Your task to perform on an android device: change the clock display to analog Image 0: 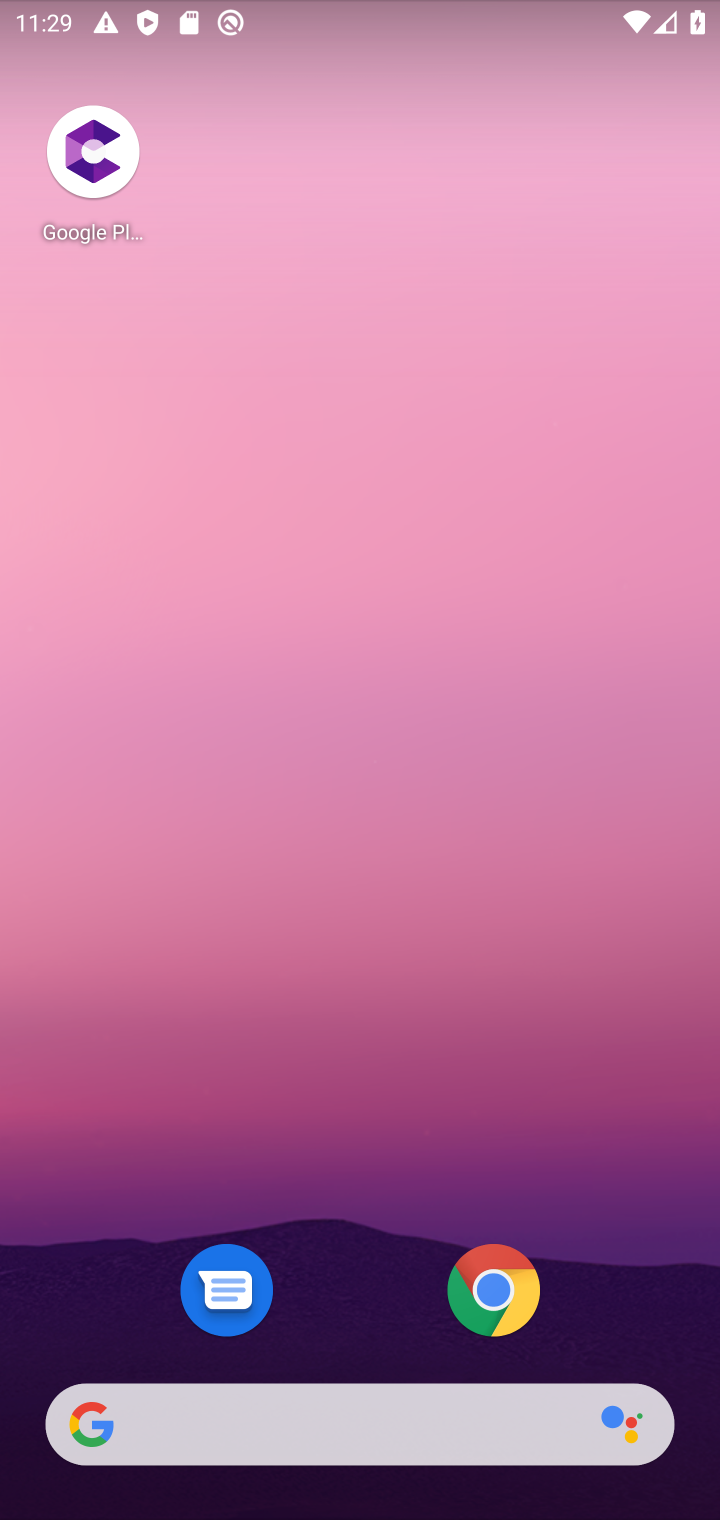
Step 0: drag from (525, 312) to (626, 26)
Your task to perform on an android device: change the clock display to analog Image 1: 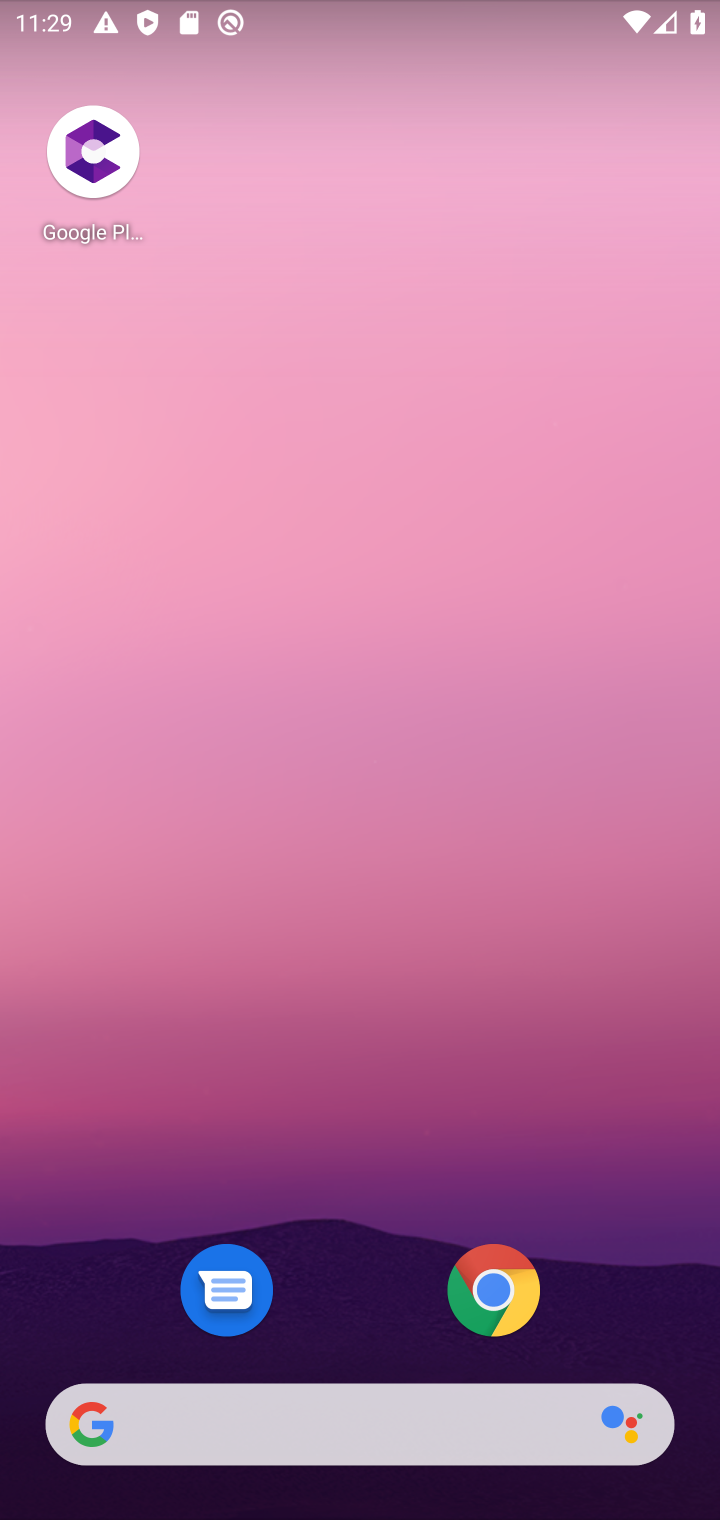
Step 1: drag from (160, 932) to (598, 3)
Your task to perform on an android device: change the clock display to analog Image 2: 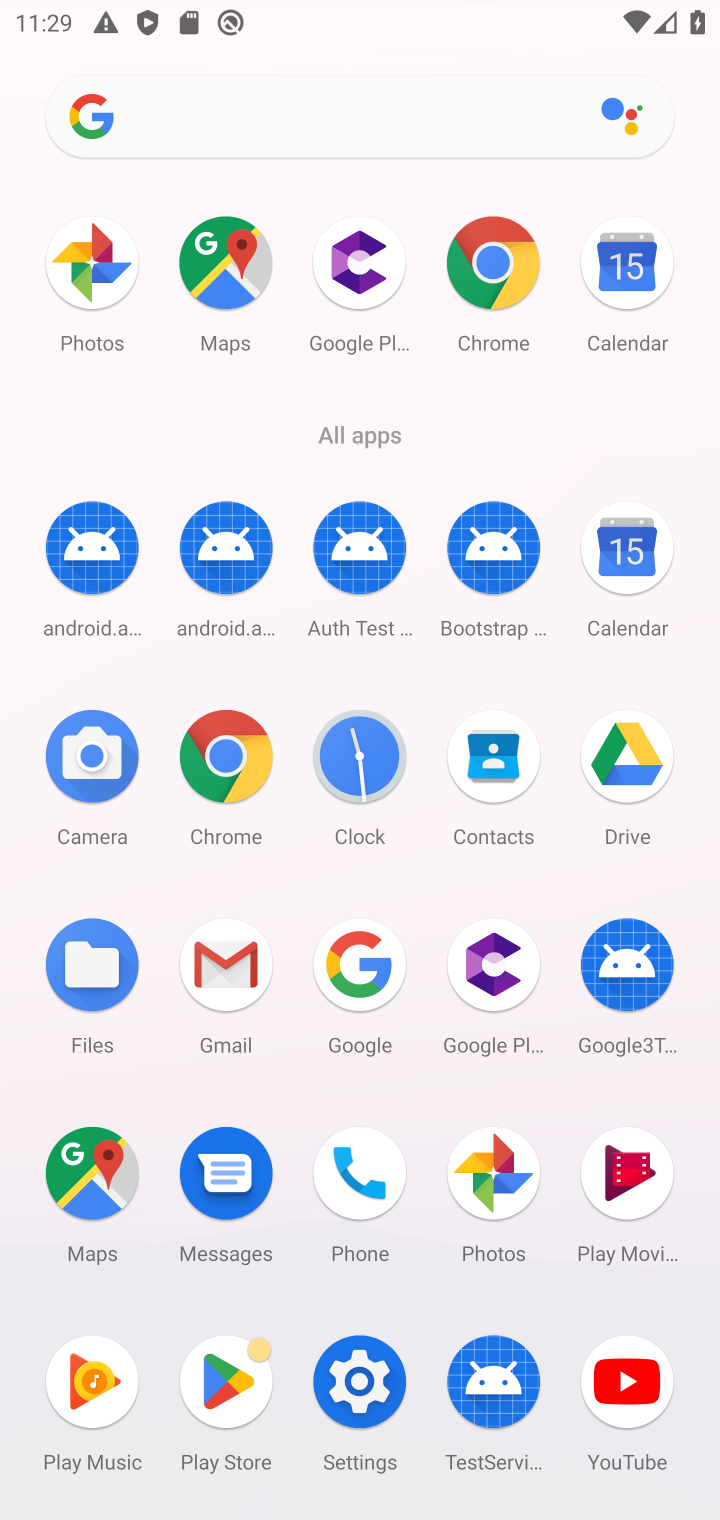
Step 2: click (352, 1379)
Your task to perform on an android device: change the clock display to analog Image 3: 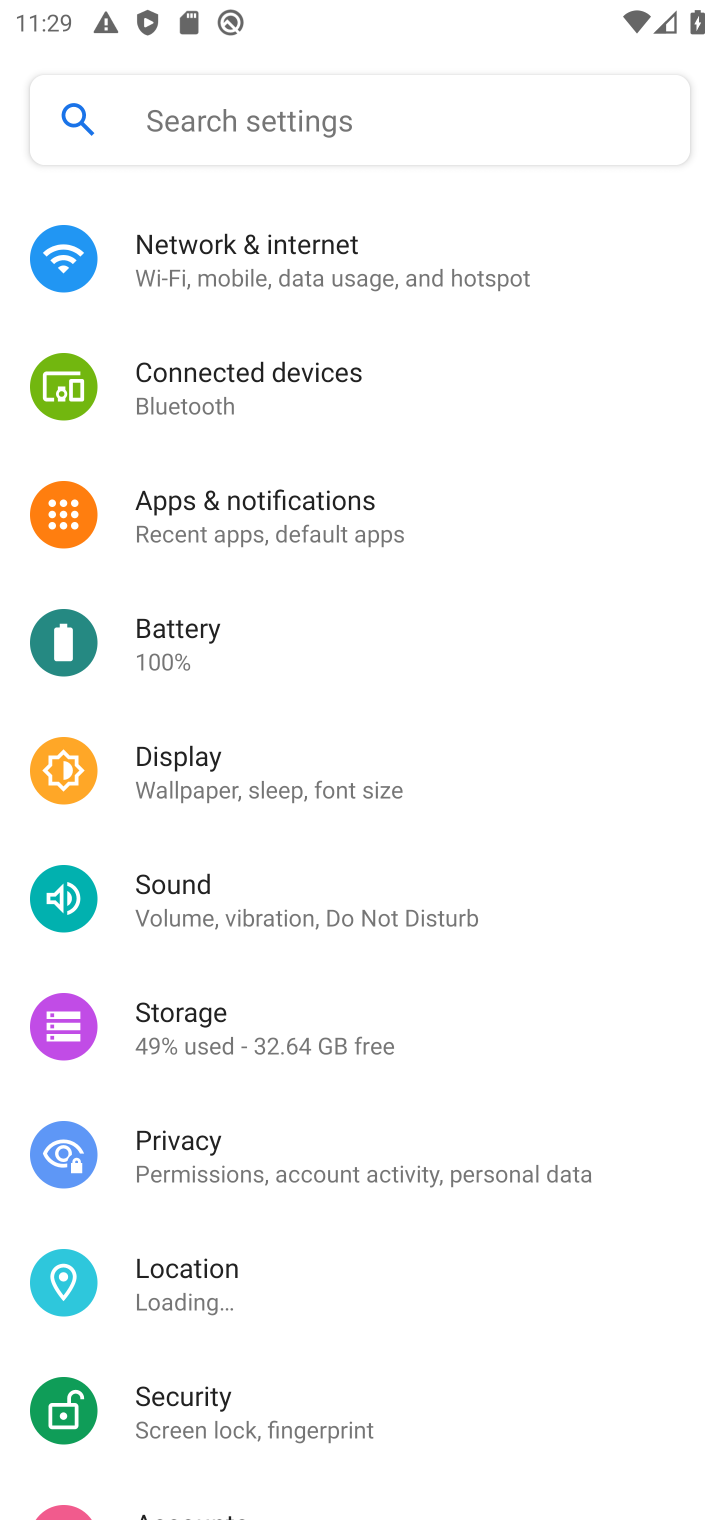
Step 3: press home button
Your task to perform on an android device: change the clock display to analog Image 4: 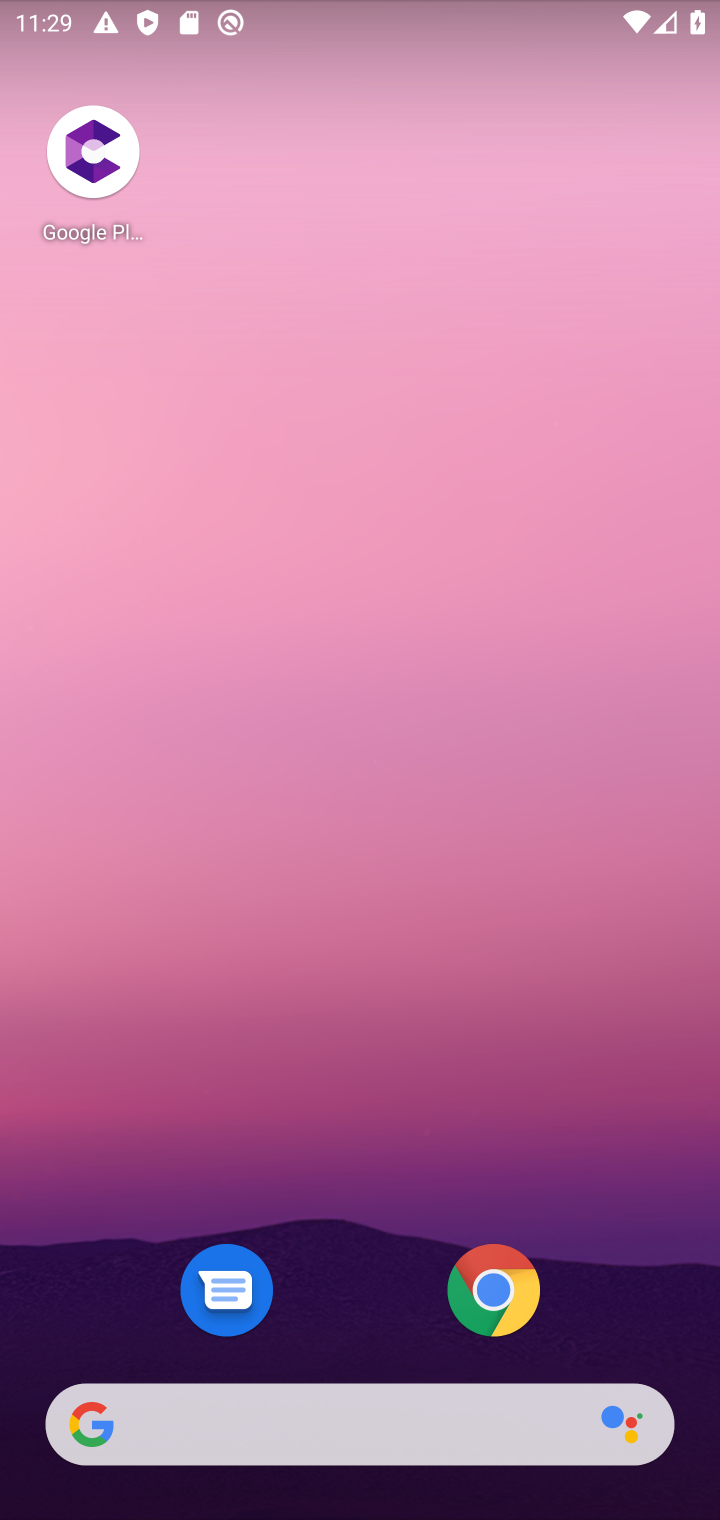
Step 4: drag from (126, 915) to (411, 348)
Your task to perform on an android device: change the clock display to analog Image 5: 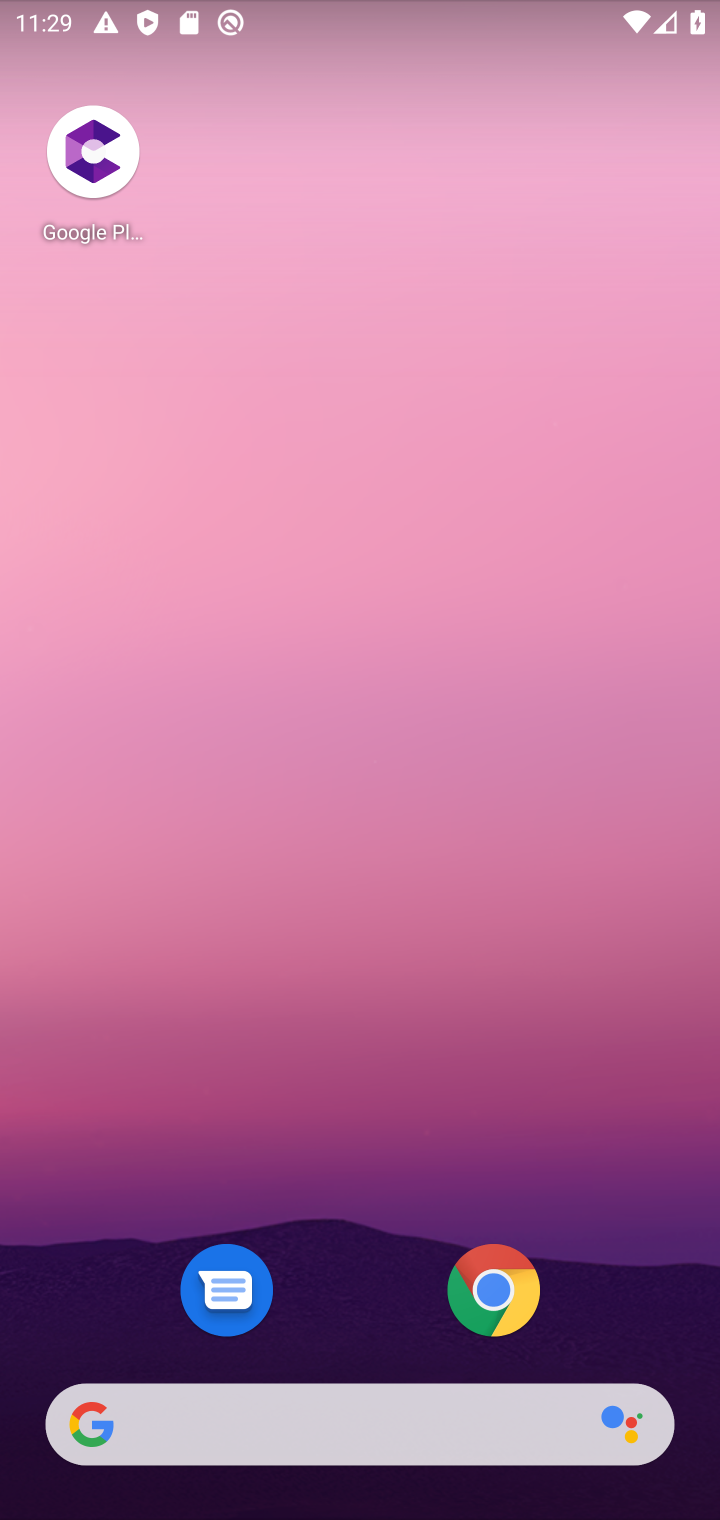
Step 5: drag from (206, 498) to (331, 62)
Your task to perform on an android device: change the clock display to analog Image 6: 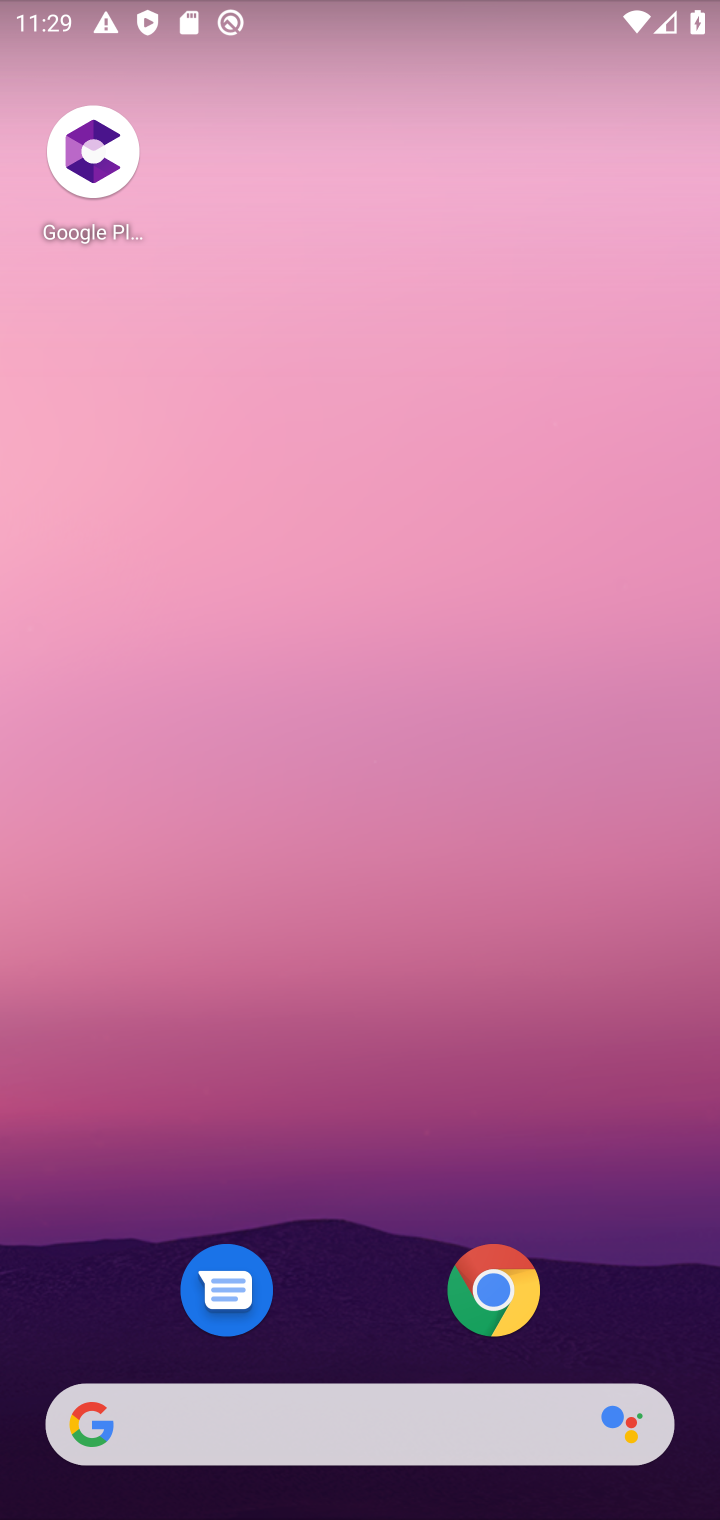
Step 6: drag from (189, 535) to (402, 11)
Your task to perform on an android device: change the clock display to analog Image 7: 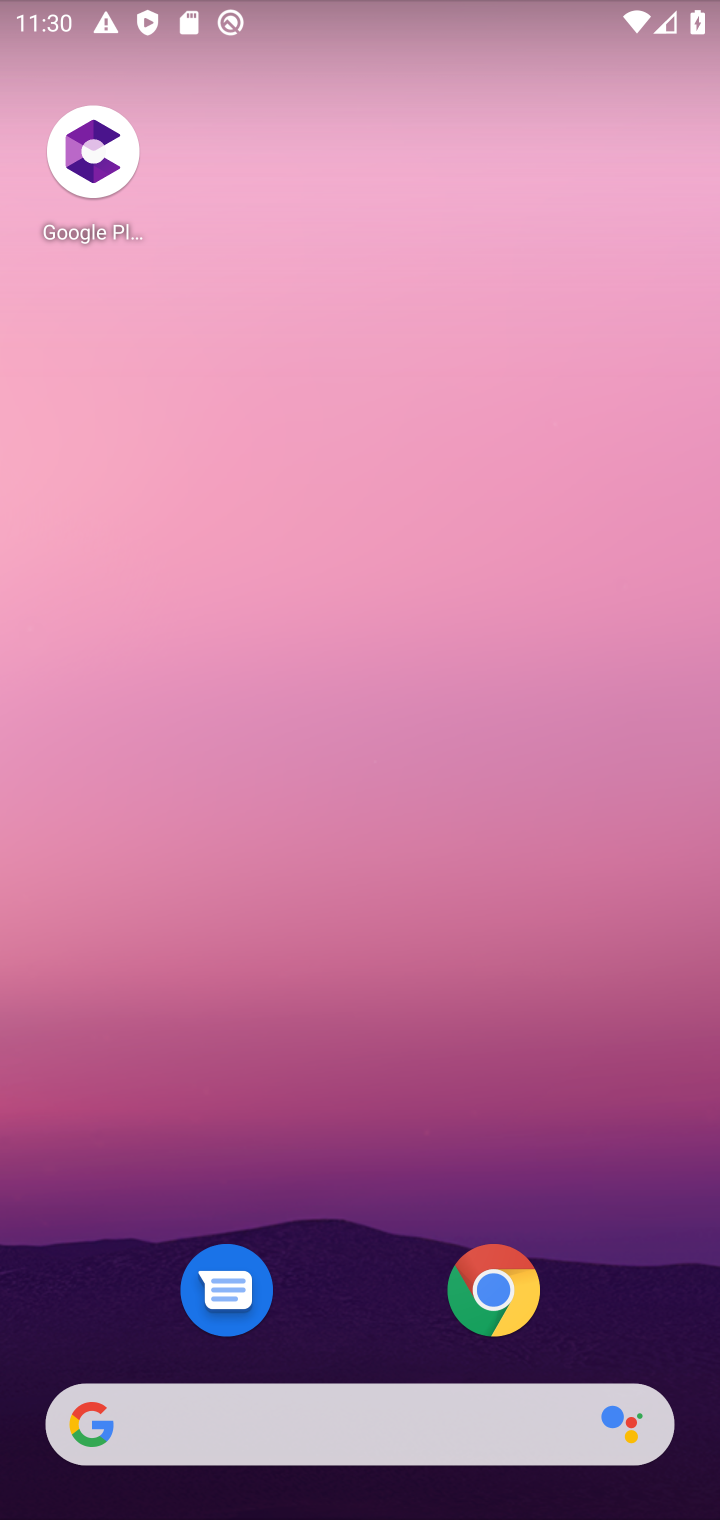
Step 7: drag from (152, 1142) to (701, 89)
Your task to perform on an android device: change the clock display to analog Image 8: 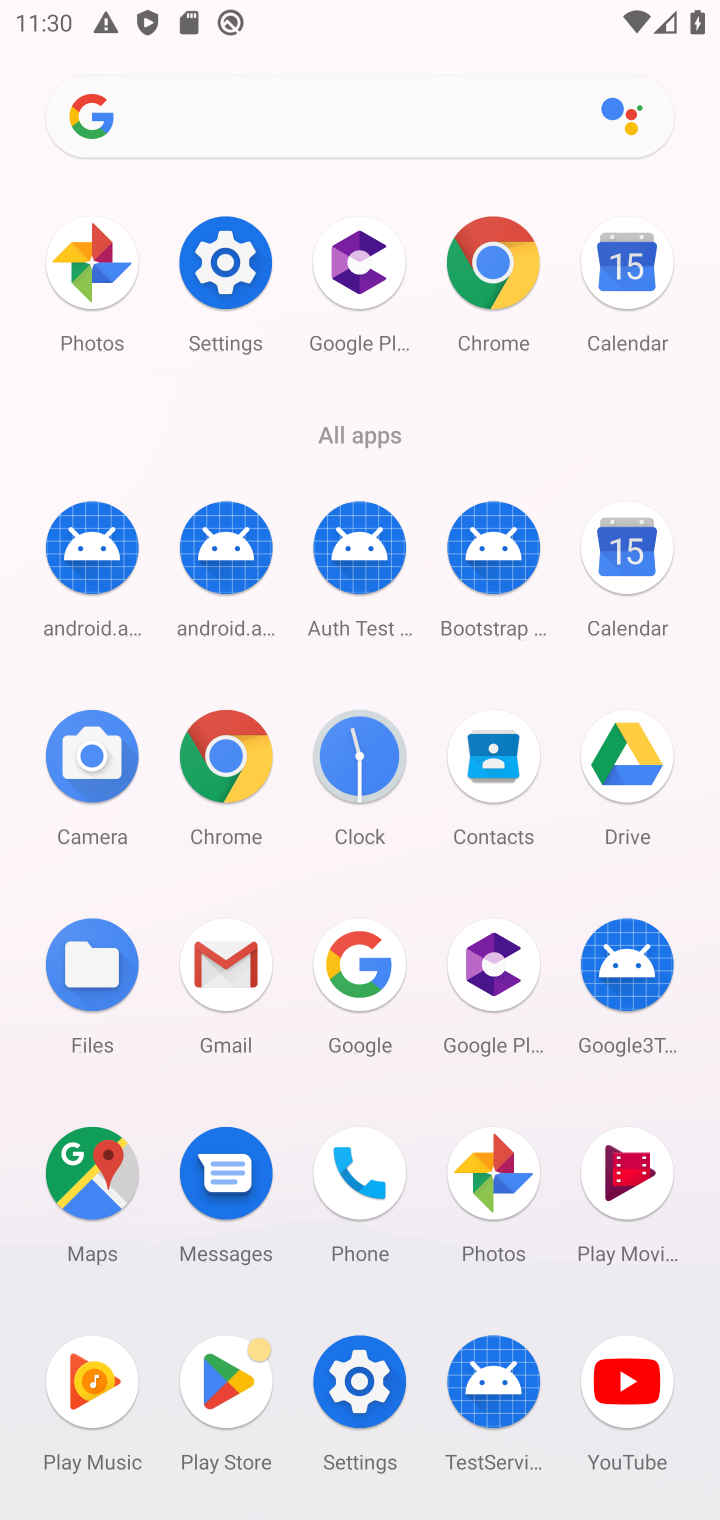
Step 8: click (346, 763)
Your task to perform on an android device: change the clock display to analog Image 9: 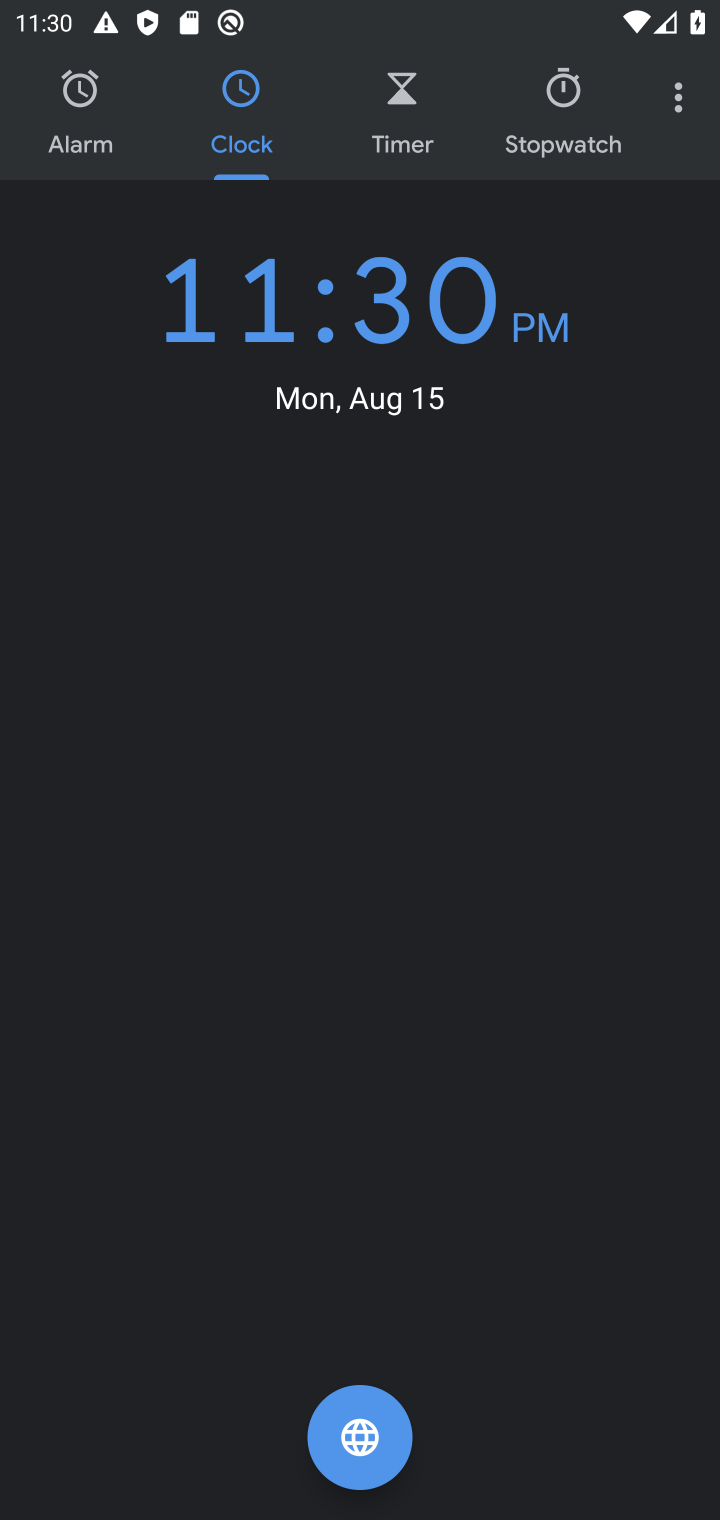
Step 9: click (684, 103)
Your task to perform on an android device: change the clock display to analog Image 10: 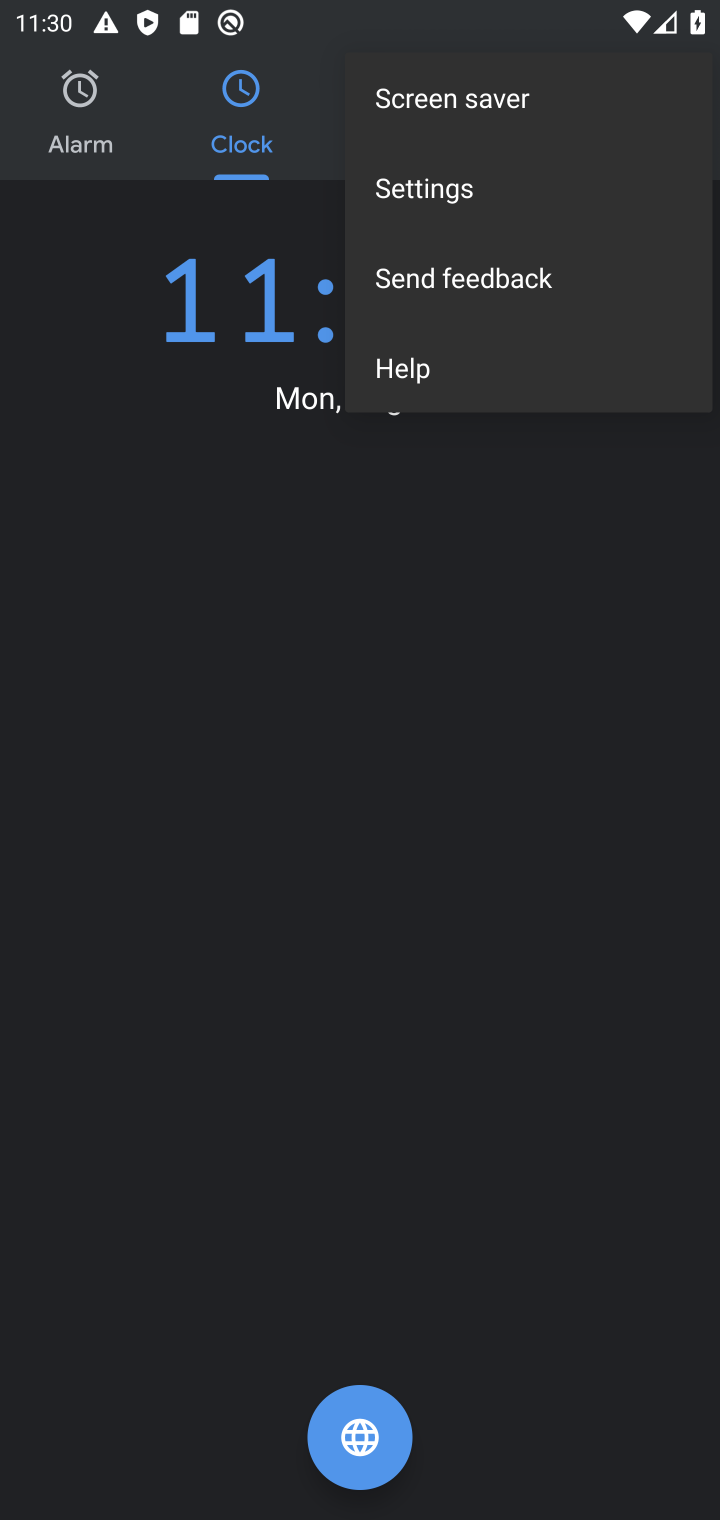
Step 10: click (484, 193)
Your task to perform on an android device: change the clock display to analog Image 11: 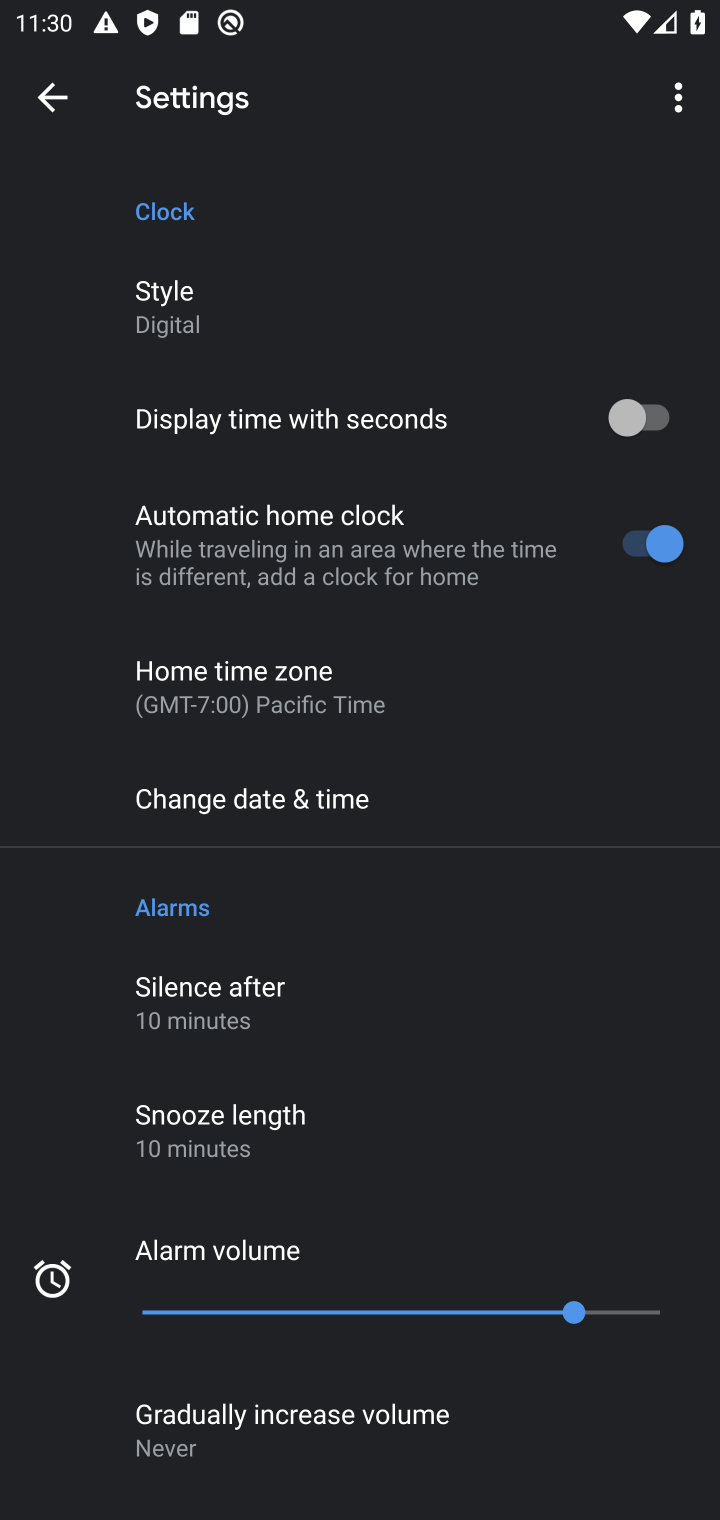
Step 11: click (172, 327)
Your task to perform on an android device: change the clock display to analog Image 12: 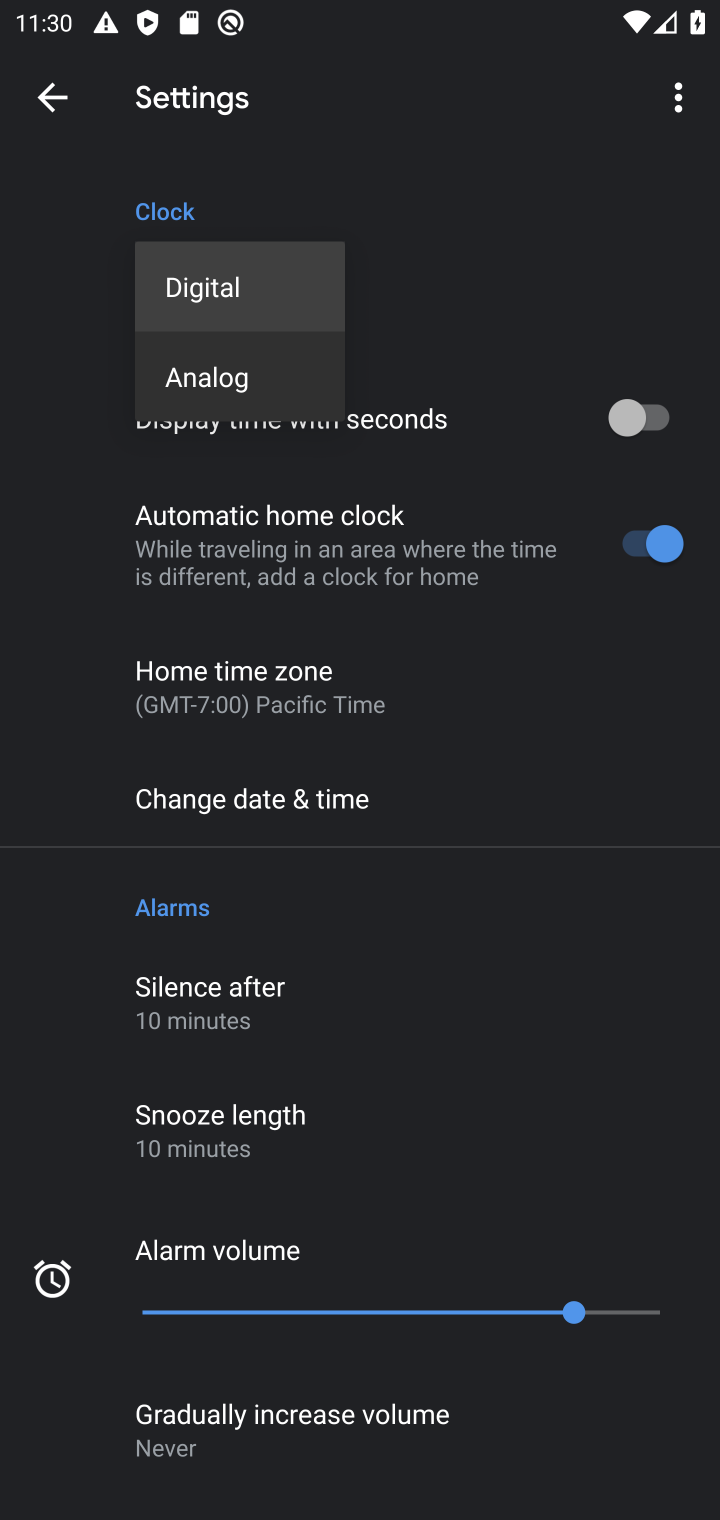
Step 12: click (212, 384)
Your task to perform on an android device: change the clock display to analog Image 13: 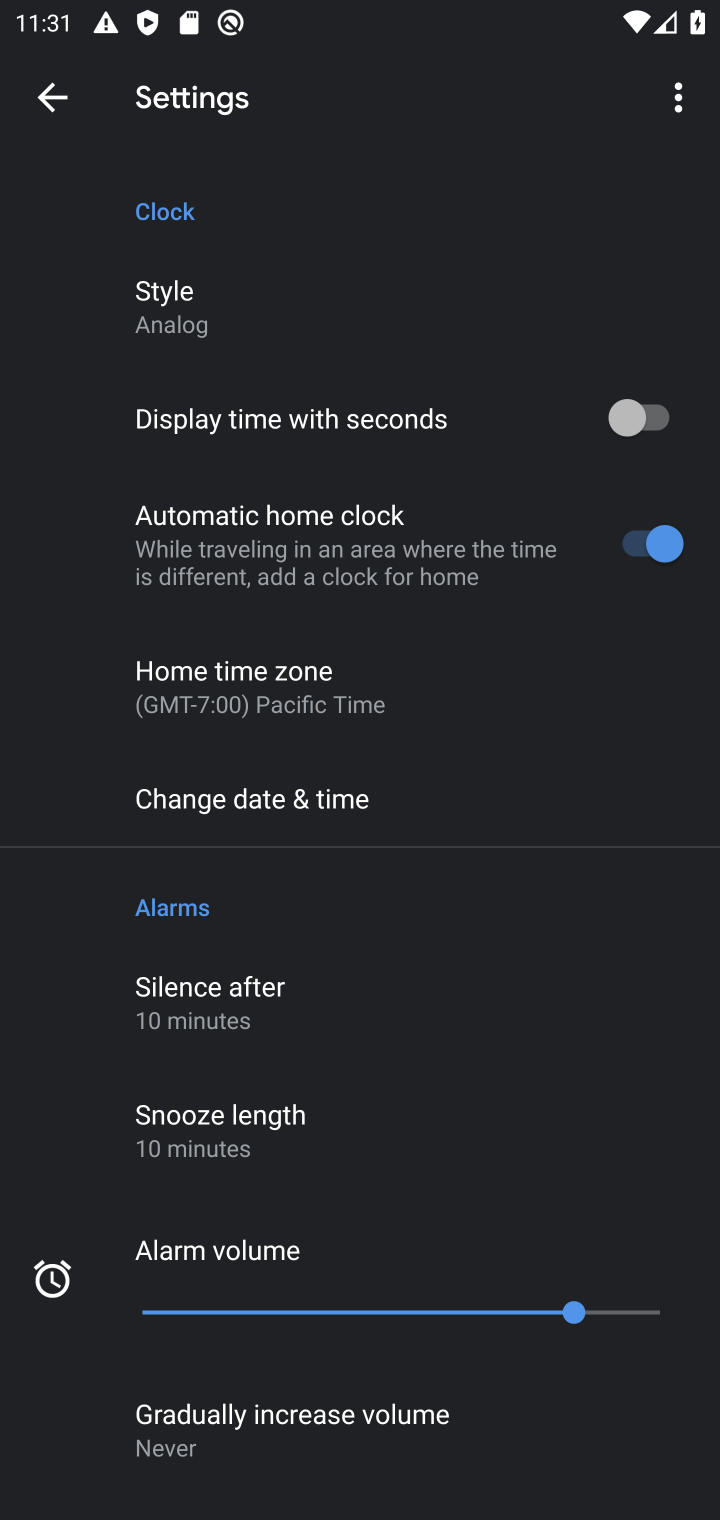
Step 13: task complete